Your task to perform on an android device: change your default location settings in chrome Image 0: 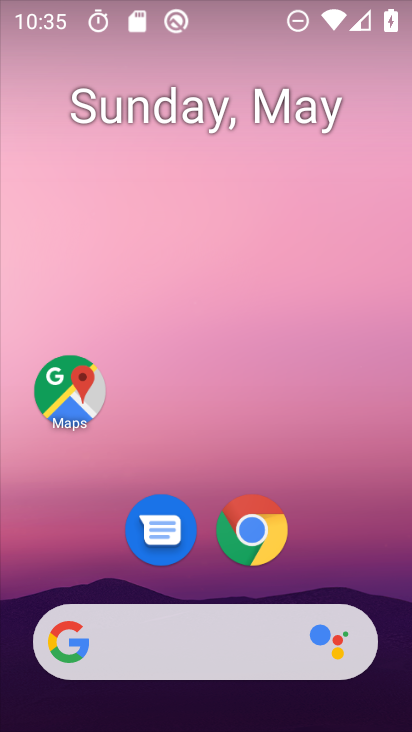
Step 0: drag from (222, 674) to (288, 1)
Your task to perform on an android device: change your default location settings in chrome Image 1: 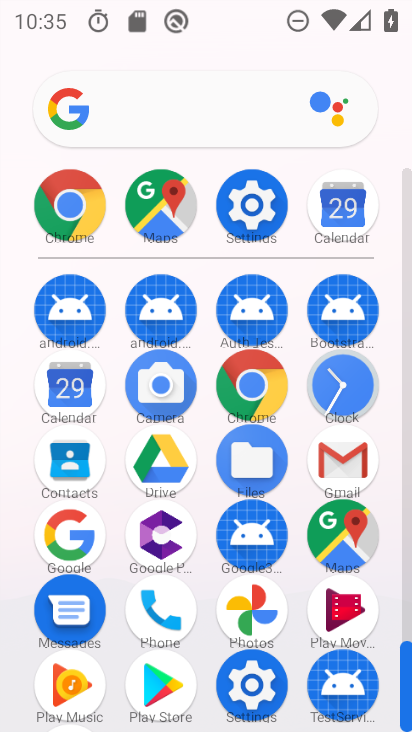
Step 1: click (79, 225)
Your task to perform on an android device: change your default location settings in chrome Image 2: 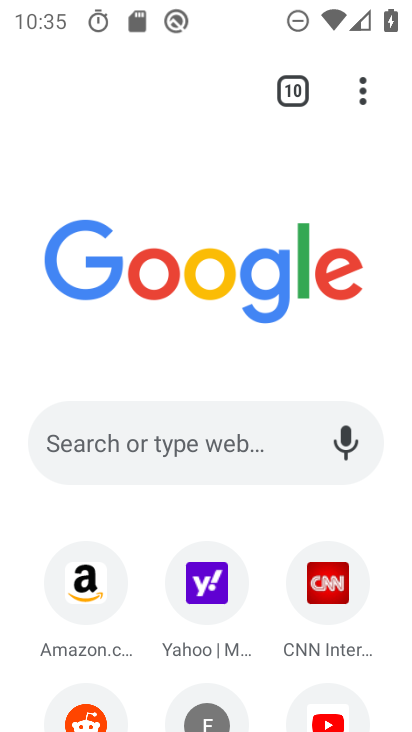
Step 2: click (363, 103)
Your task to perform on an android device: change your default location settings in chrome Image 3: 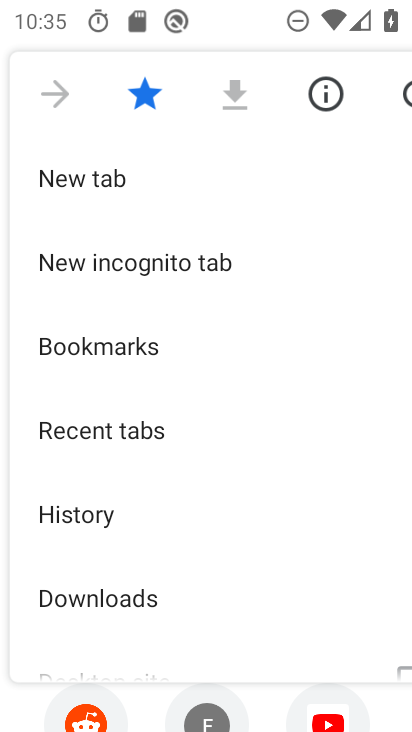
Step 3: drag from (117, 474) to (172, 163)
Your task to perform on an android device: change your default location settings in chrome Image 4: 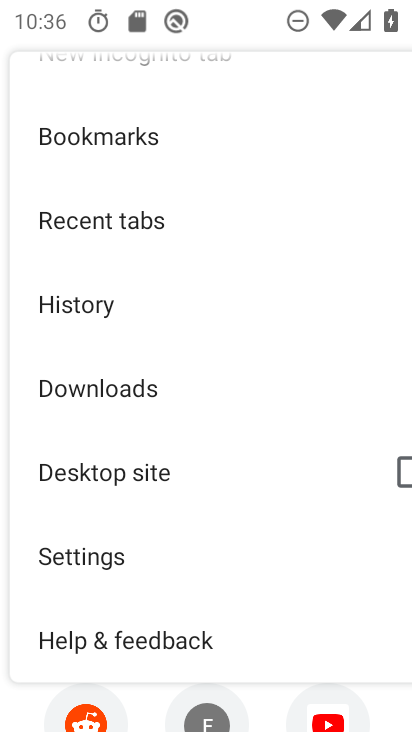
Step 4: click (79, 553)
Your task to perform on an android device: change your default location settings in chrome Image 5: 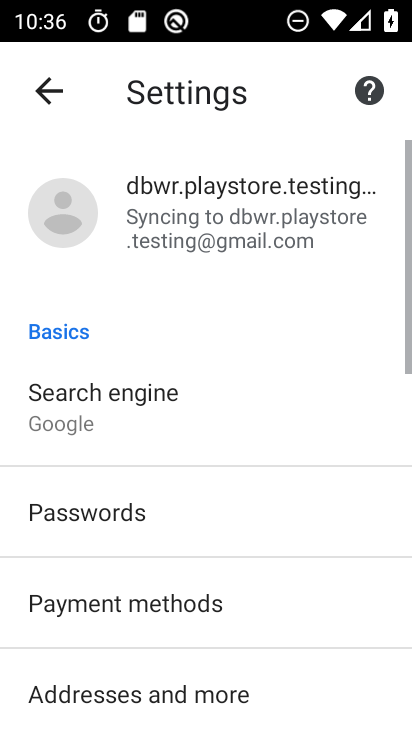
Step 5: drag from (192, 603) to (199, 328)
Your task to perform on an android device: change your default location settings in chrome Image 6: 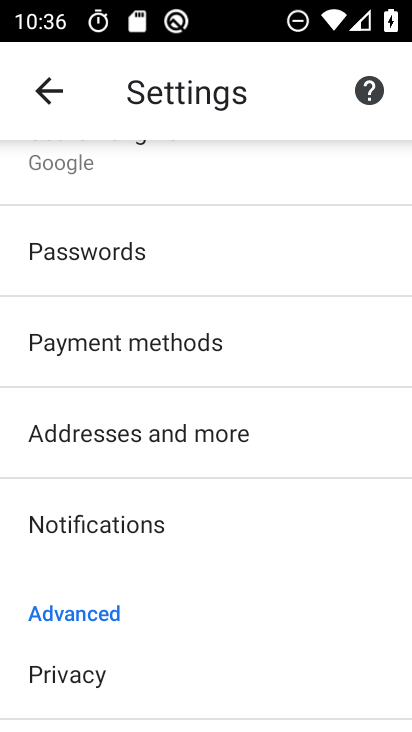
Step 6: drag from (204, 591) to (227, 289)
Your task to perform on an android device: change your default location settings in chrome Image 7: 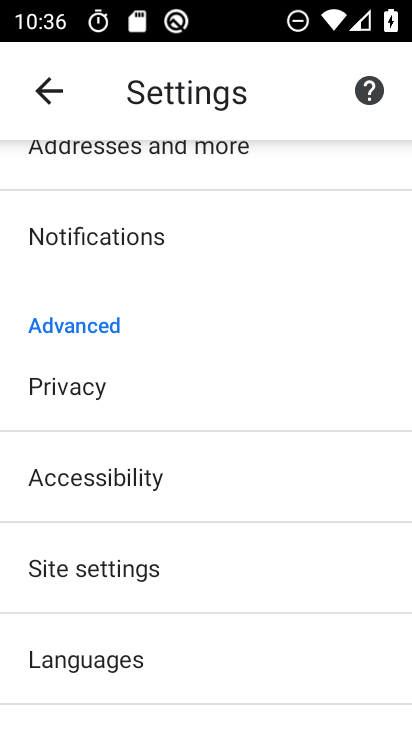
Step 7: click (157, 577)
Your task to perform on an android device: change your default location settings in chrome Image 8: 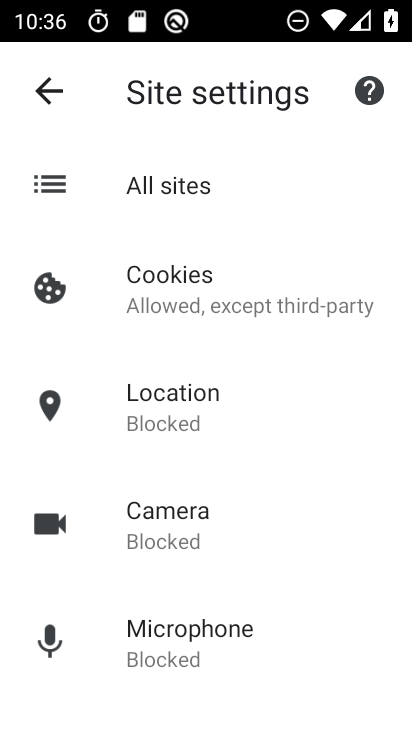
Step 8: drag from (172, 600) to (184, 315)
Your task to perform on an android device: change your default location settings in chrome Image 9: 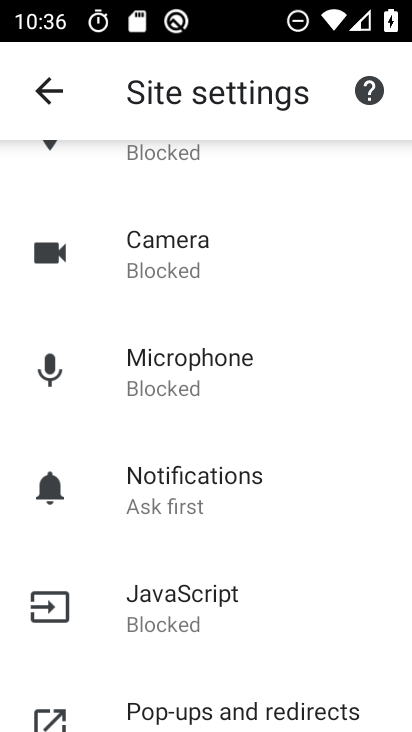
Step 9: drag from (166, 503) to (167, 281)
Your task to perform on an android device: change your default location settings in chrome Image 10: 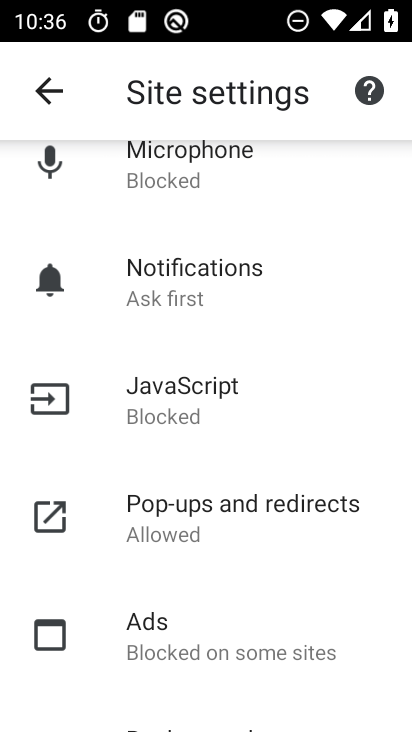
Step 10: drag from (171, 220) to (203, 668)
Your task to perform on an android device: change your default location settings in chrome Image 11: 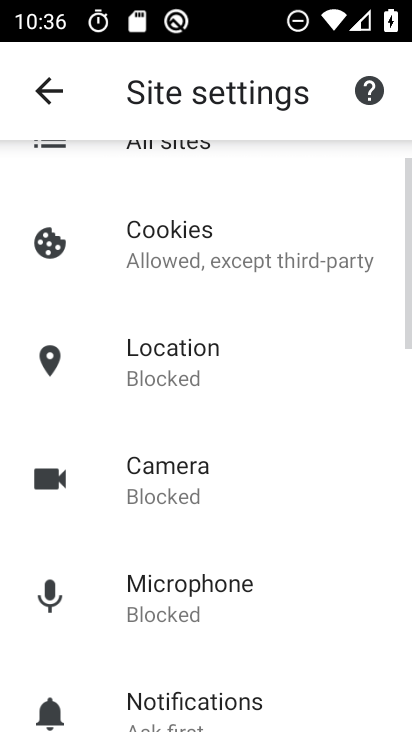
Step 11: click (155, 366)
Your task to perform on an android device: change your default location settings in chrome Image 12: 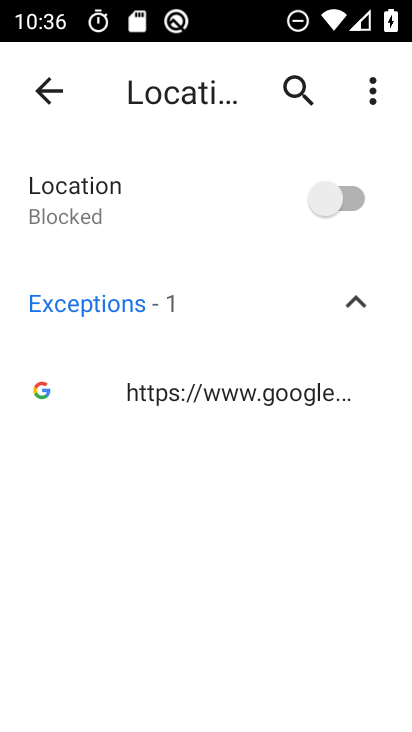
Step 12: task complete